Your task to perform on an android device: Go to privacy settings Image 0: 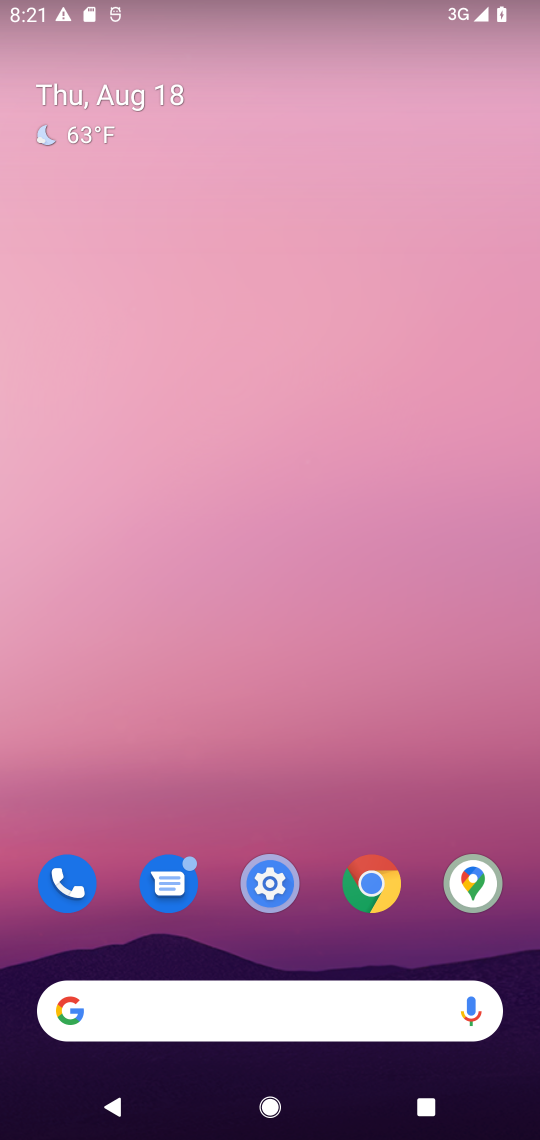
Step 0: click (263, 865)
Your task to perform on an android device: Go to privacy settings Image 1: 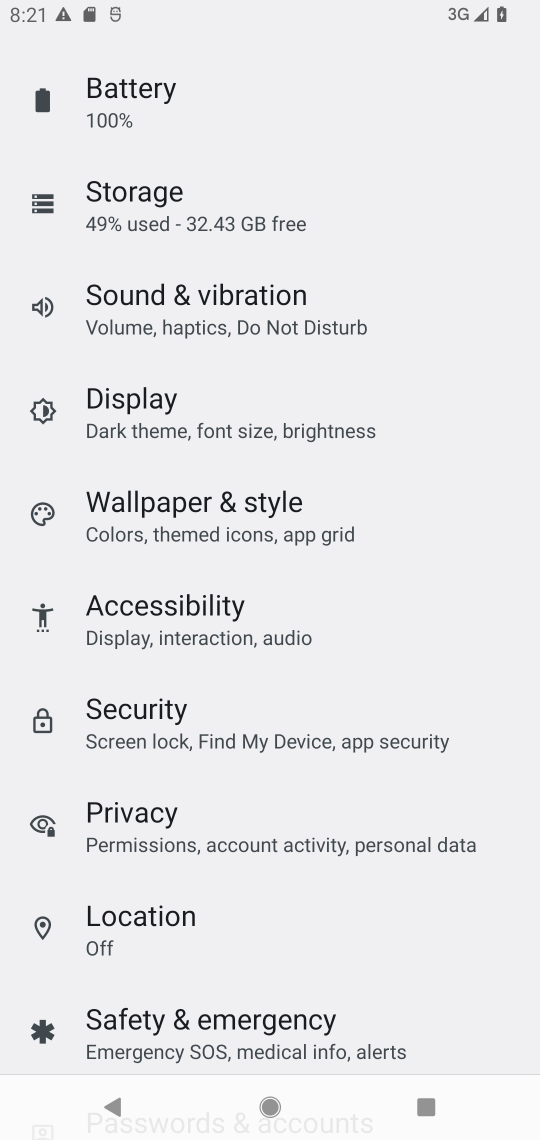
Step 1: click (142, 816)
Your task to perform on an android device: Go to privacy settings Image 2: 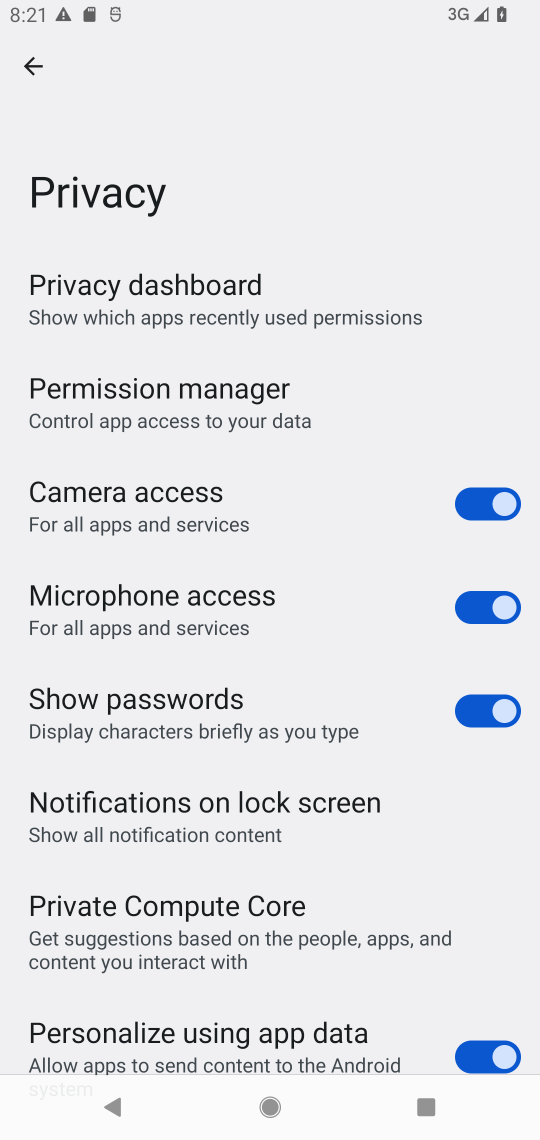
Step 2: task complete